Your task to perform on an android device: see creations saved in the google photos Image 0: 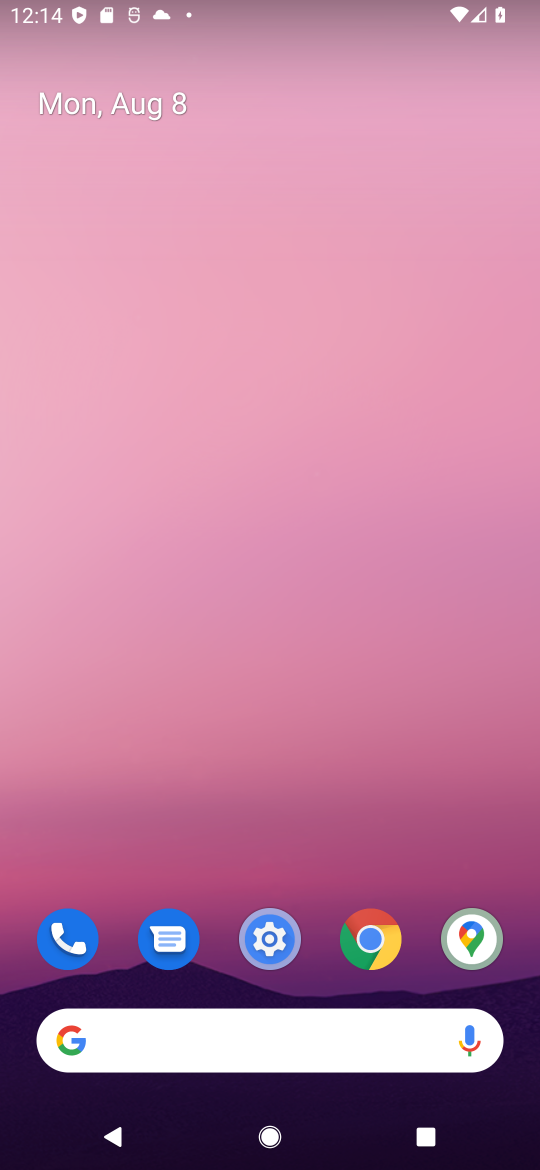
Step 0: drag from (250, 1040) to (337, 273)
Your task to perform on an android device: see creations saved in the google photos Image 1: 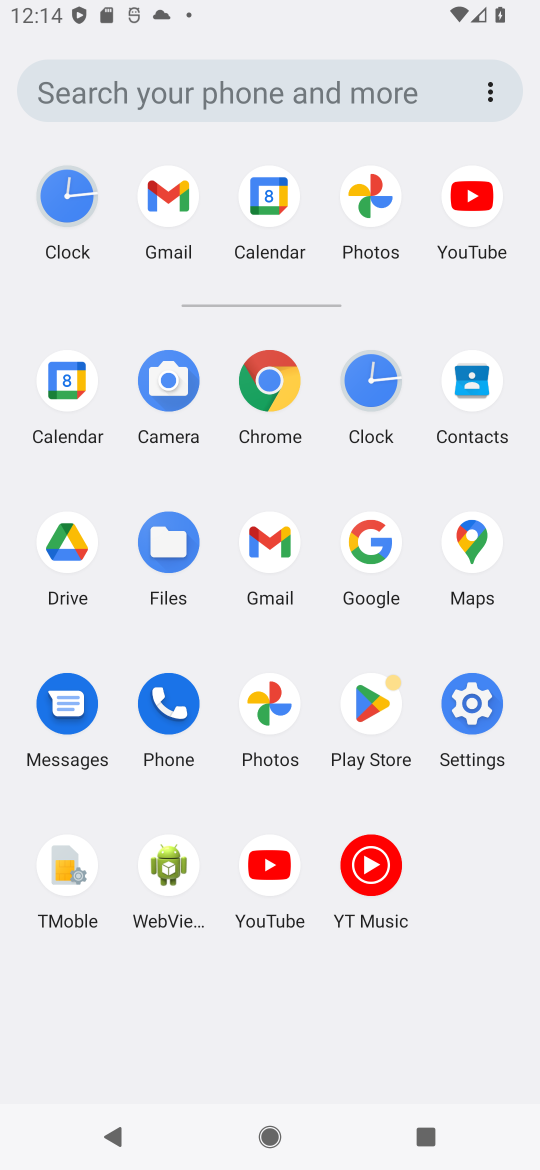
Step 1: click (371, 194)
Your task to perform on an android device: see creations saved in the google photos Image 2: 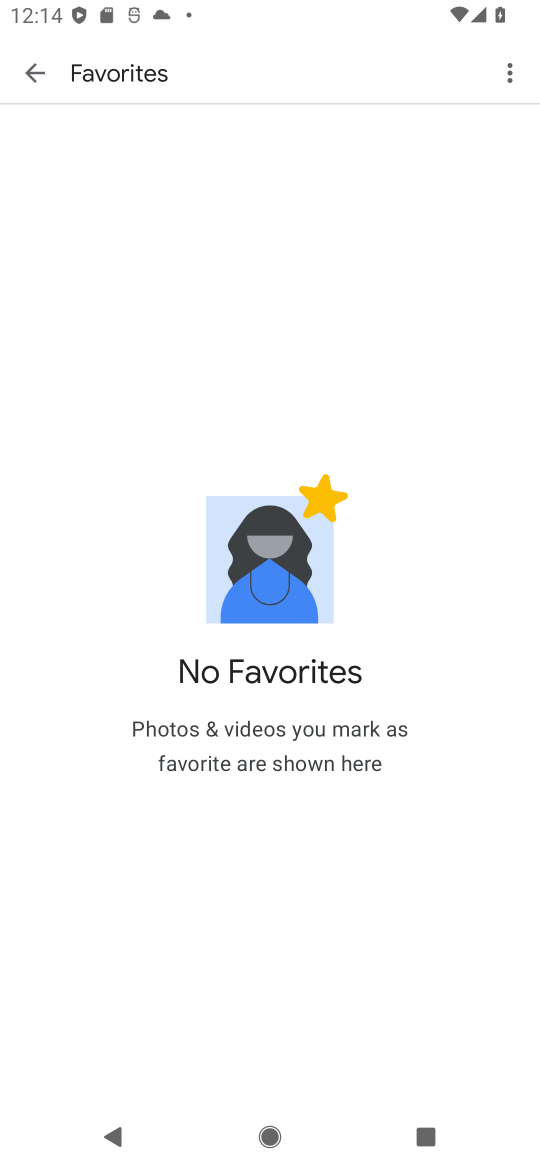
Step 2: press back button
Your task to perform on an android device: see creations saved in the google photos Image 3: 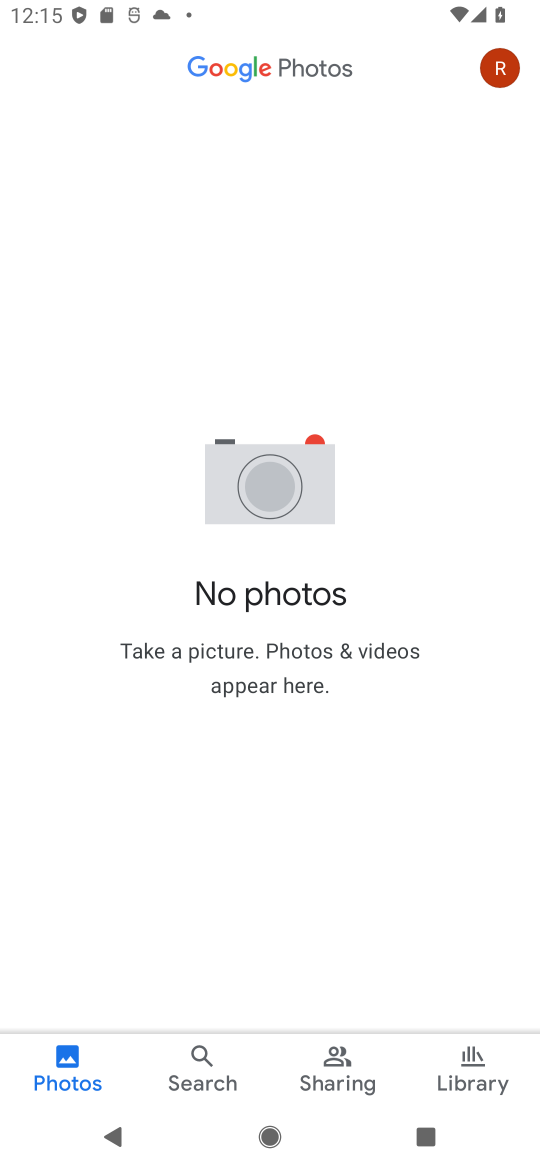
Step 3: click (208, 1045)
Your task to perform on an android device: see creations saved in the google photos Image 4: 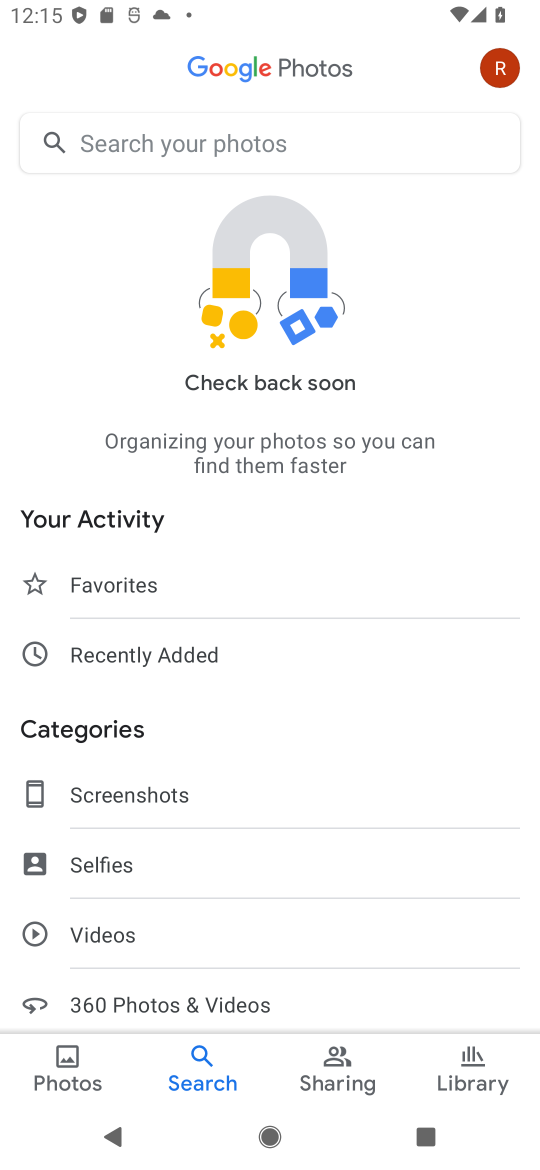
Step 4: drag from (170, 886) to (325, 674)
Your task to perform on an android device: see creations saved in the google photos Image 5: 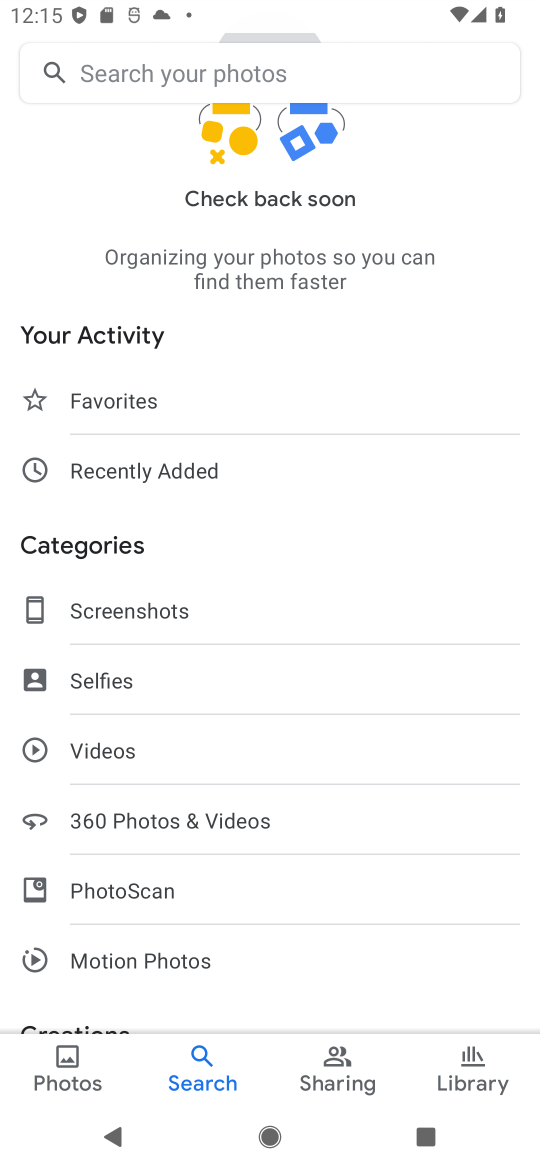
Step 5: drag from (166, 893) to (258, 738)
Your task to perform on an android device: see creations saved in the google photos Image 6: 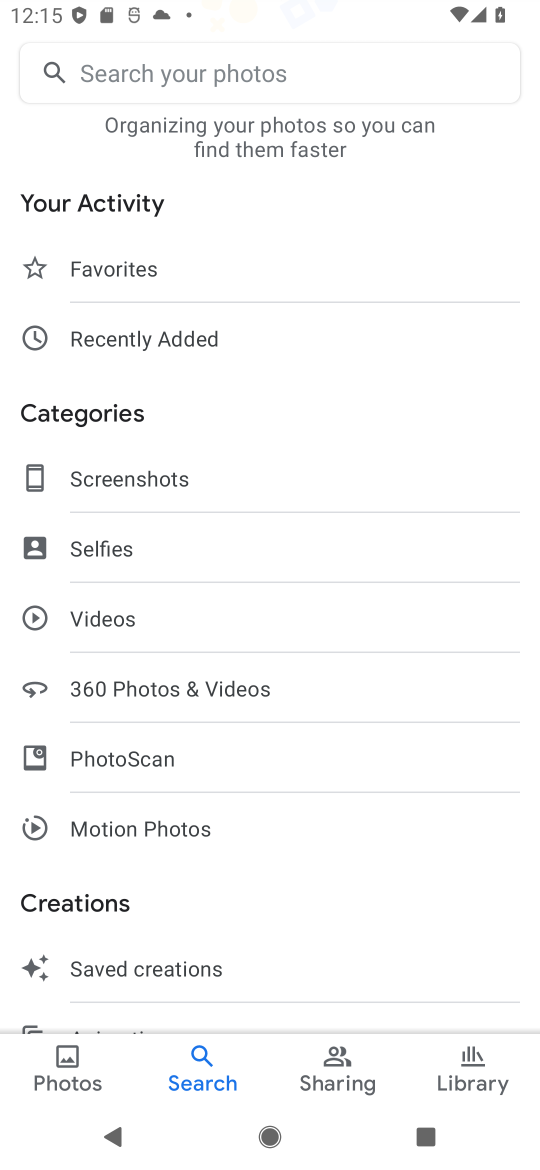
Step 6: click (160, 968)
Your task to perform on an android device: see creations saved in the google photos Image 7: 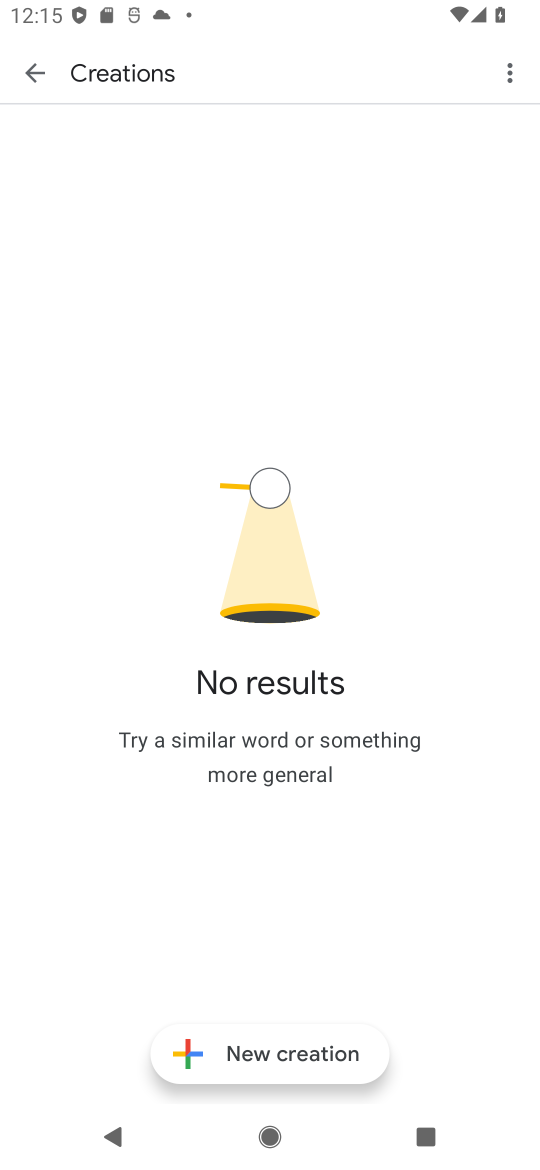
Step 7: task complete